Your task to perform on an android device: toggle translation in the chrome app Image 0: 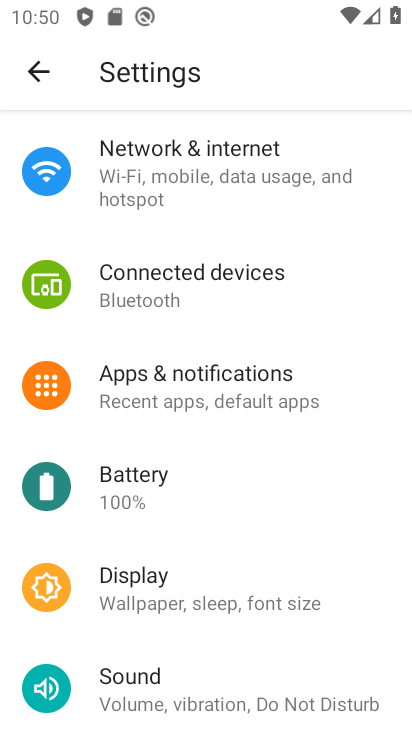
Step 0: press home button
Your task to perform on an android device: toggle translation in the chrome app Image 1: 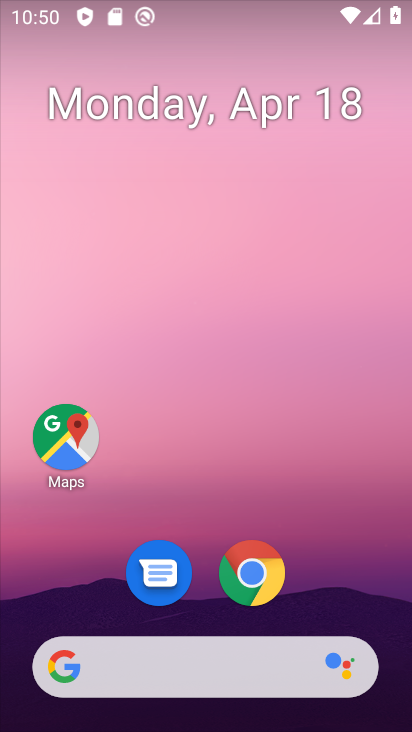
Step 1: drag from (346, 575) to (365, 101)
Your task to perform on an android device: toggle translation in the chrome app Image 2: 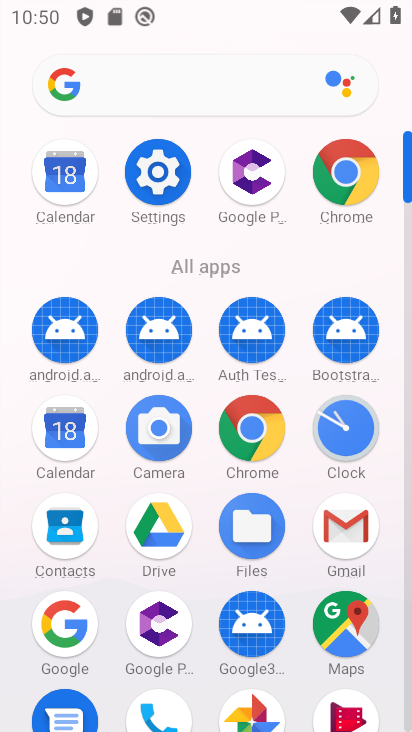
Step 2: drag from (293, 264) to (308, 12)
Your task to perform on an android device: toggle translation in the chrome app Image 3: 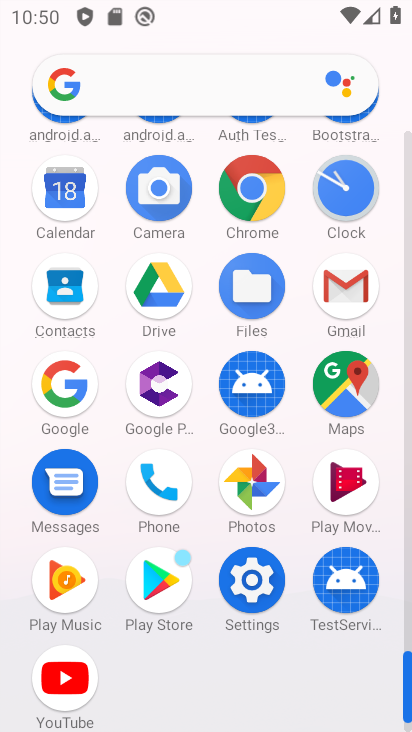
Step 3: click (260, 199)
Your task to perform on an android device: toggle translation in the chrome app Image 4: 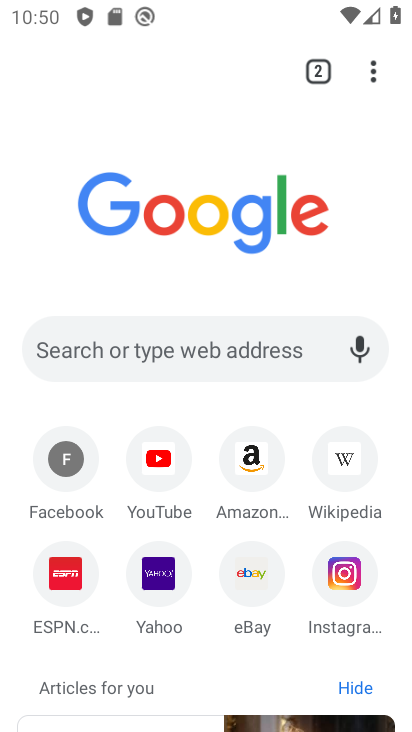
Step 4: drag from (374, 76) to (150, 590)
Your task to perform on an android device: toggle translation in the chrome app Image 5: 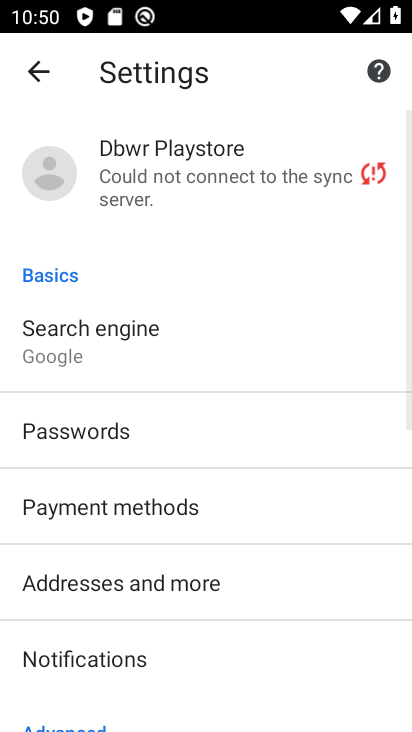
Step 5: drag from (275, 655) to (268, 264)
Your task to perform on an android device: toggle translation in the chrome app Image 6: 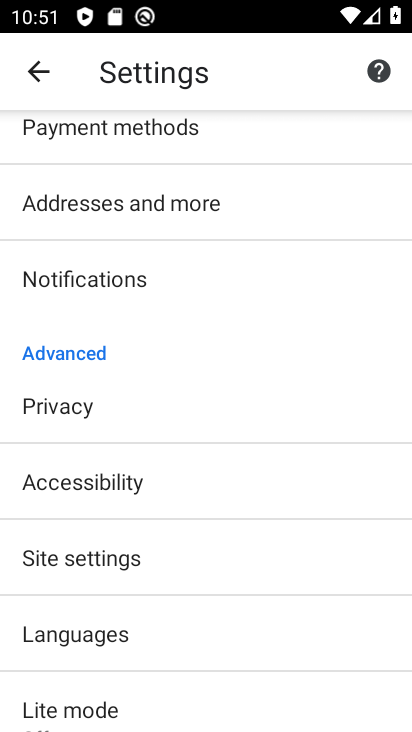
Step 6: click (92, 631)
Your task to perform on an android device: toggle translation in the chrome app Image 7: 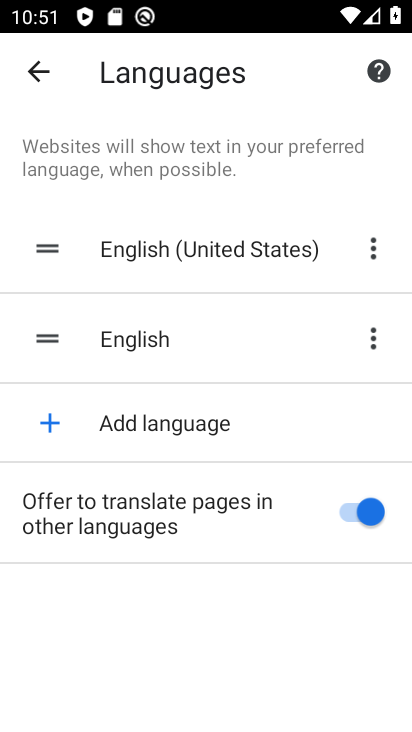
Step 7: click (349, 512)
Your task to perform on an android device: toggle translation in the chrome app Image 8: 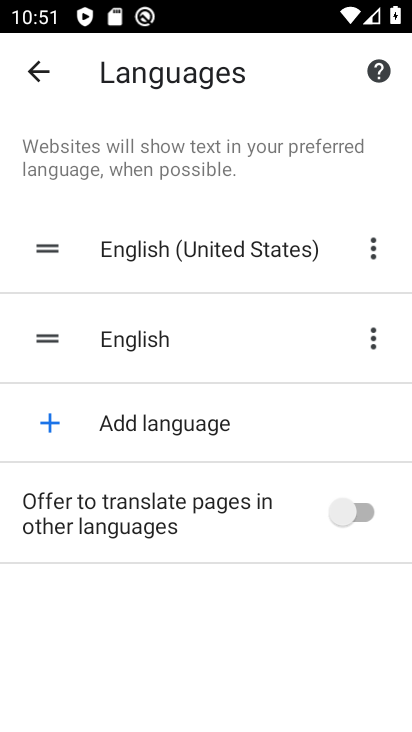
Step 8: task complete